Your task to perform on an android device: Go to notification settings Image 0: 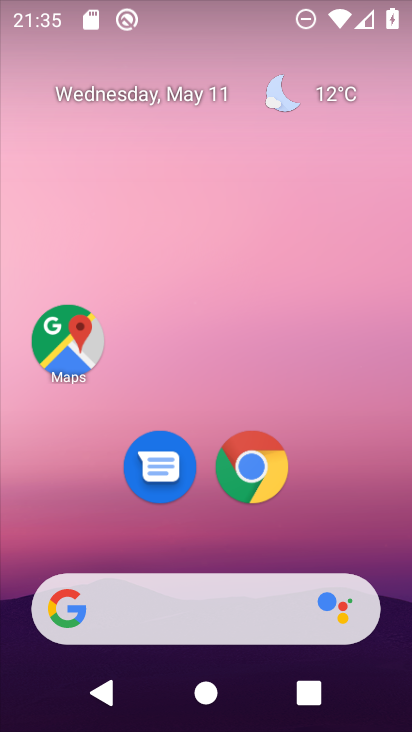
Step 0: press home button
Your task to perform on an android device: Go to notification settings Image 1: 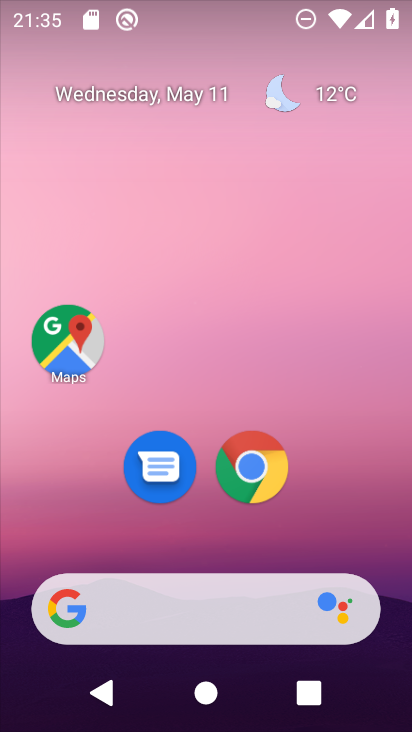
Step 1: drag from (206, 533) to (195, 4)
Your task to perform on an android device: Go to notification settings Image 2: 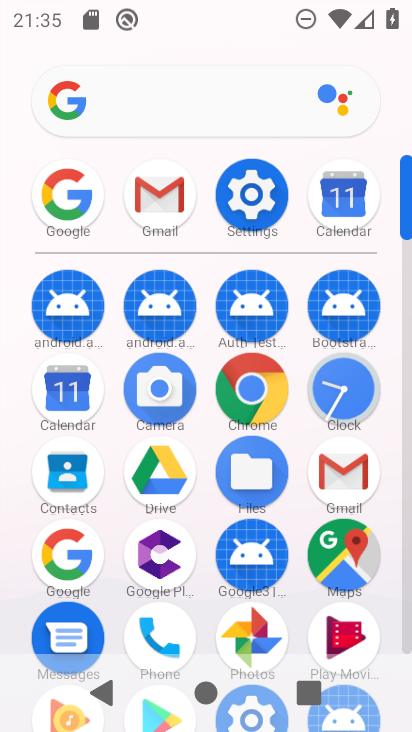
Step 2: click (253, 186)
Your task to perform on an android device: Go to notification settings Image 3: 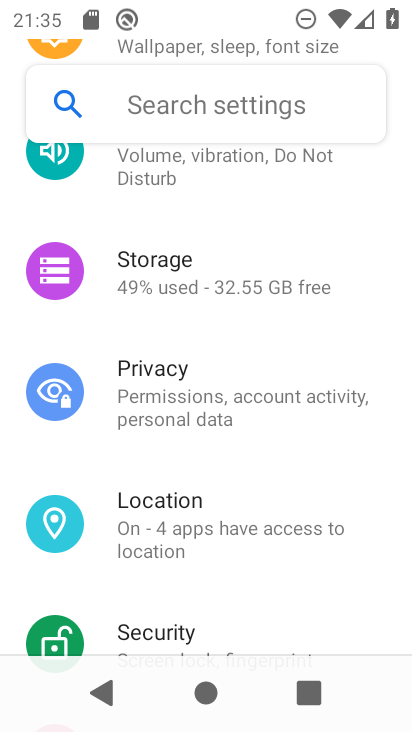
Step 3: drag from (219, 182) to (231, 691)
Your task to perform on an android device: Go to notification settings Image 4: 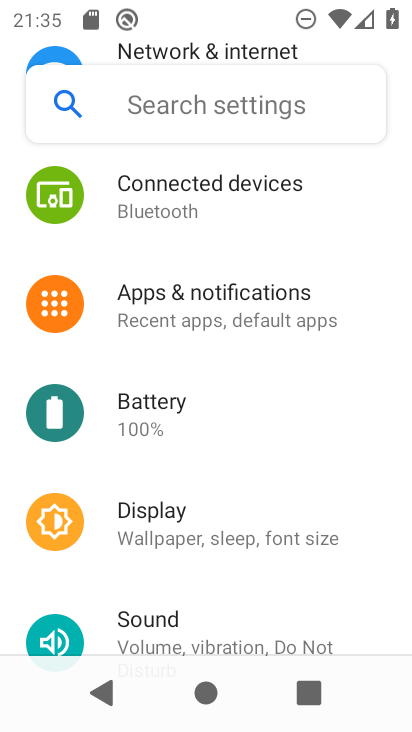
Step 4: click (217, 312)
Your task to perform on an android device: Go to notification settings Image 5: 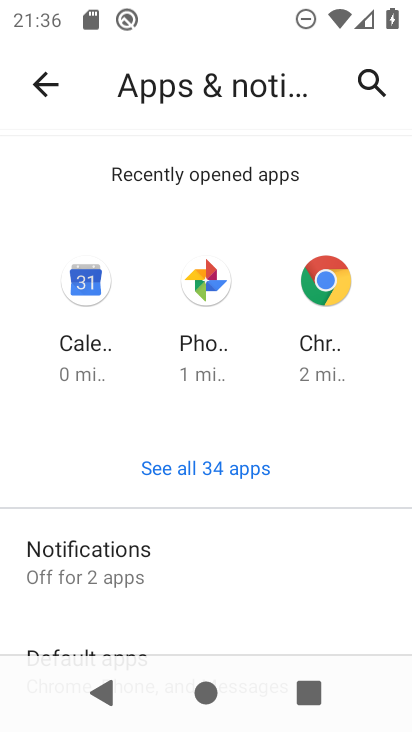
Step 5: click (139, 571)
Your task to perform on an android device: Go to notification settings Image 6: 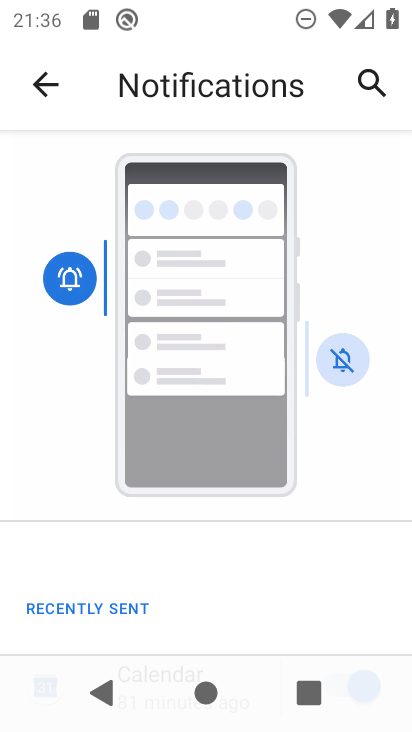
Step 6: drag from (208, 571) to (205, 99)
Your task to perform on an android device: Go to notification settings Image 7: 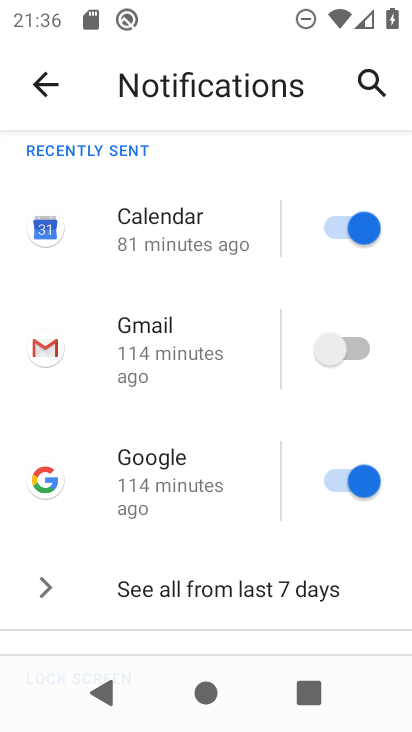
Step 7: drag from (197, 601) to (203, 151)
Your task to perform on an android device: Go to notification settings Image 8: 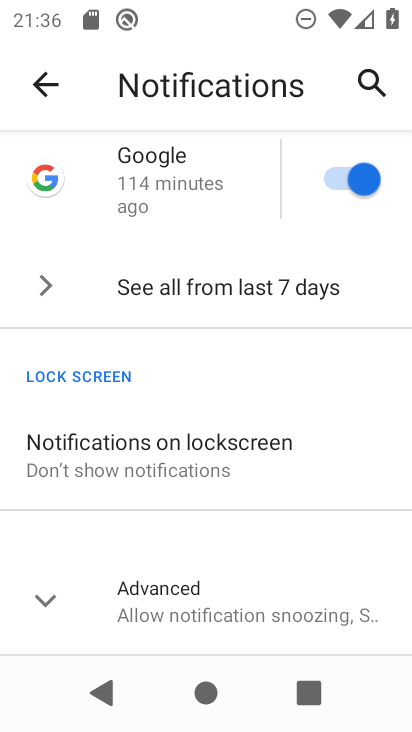
Step 8: click (54, 600)
Your task to perform on an android device: Go to notification settings Image 9: 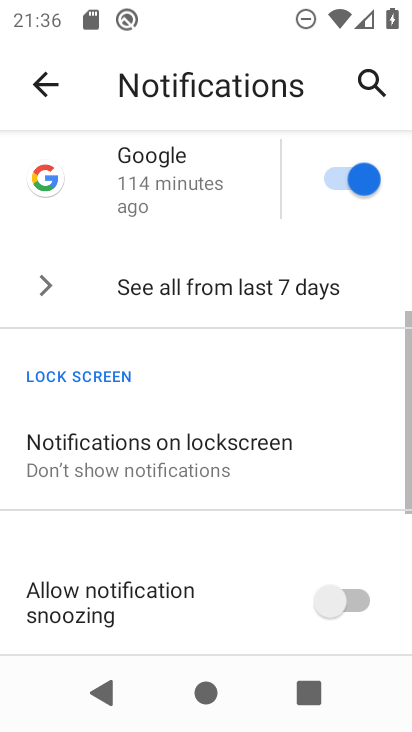
Step 9: task complete